Your task to perform on an android device: search for starred emails in the gmail app Image 0: 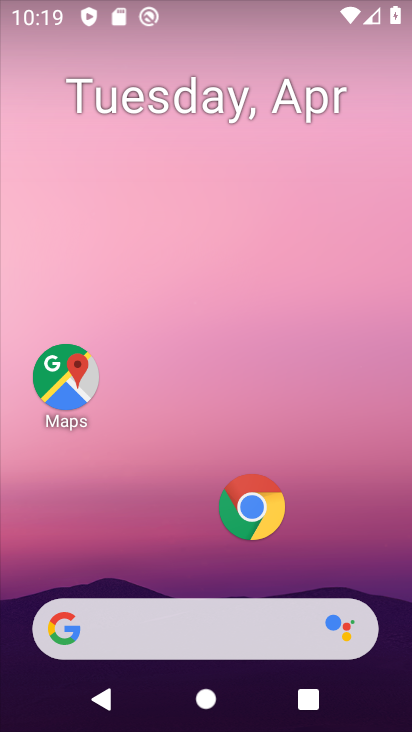
Step 0: drag from (8, 632) to (178, 243)
Your task to perform on an android device: search for starred emails in the gmail app Image 1: 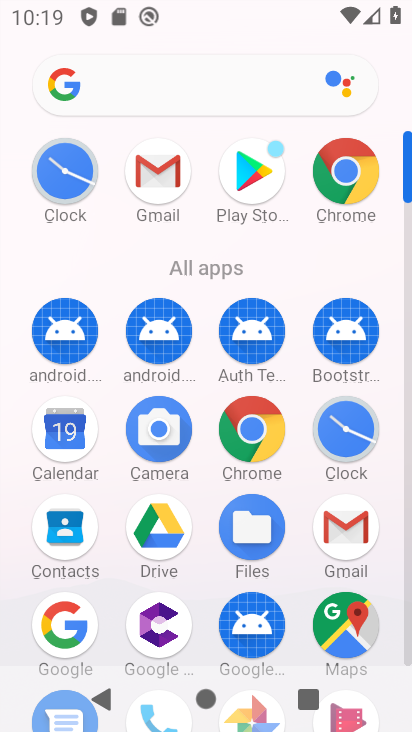
Step 1: click (370, 517)
Your task to perform on an android device: search for starred emails in the gmail app Image 2: 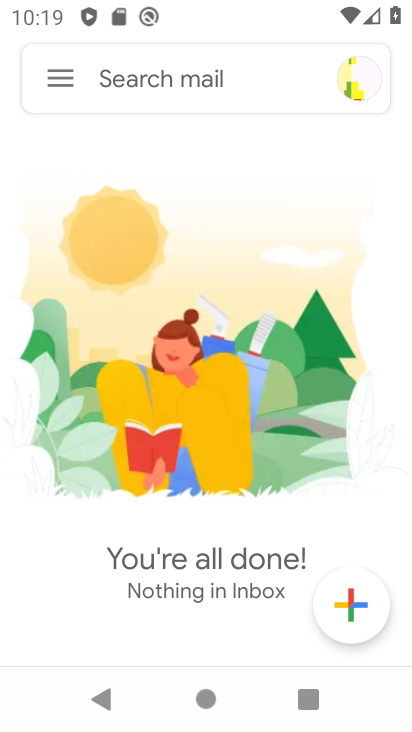
Step 2: click (47, 74)
Your task to perform on an android device: search for starred emails in the gmail app Image 3: 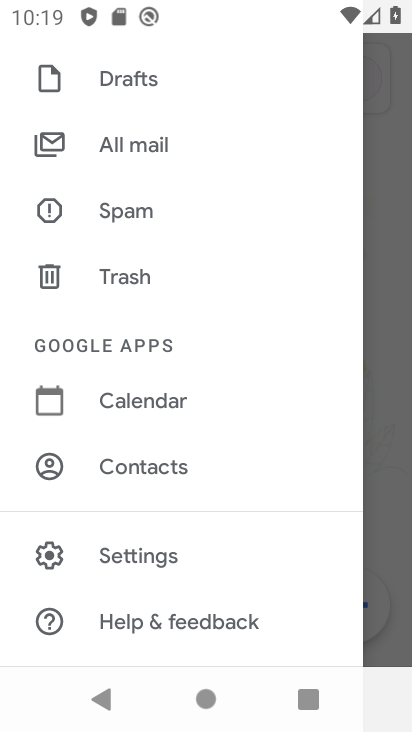
Step 3: drag from (98, 522) to (162, 145)
Your task to perform on an android device: search for starred emails in the gmail app Image 4: 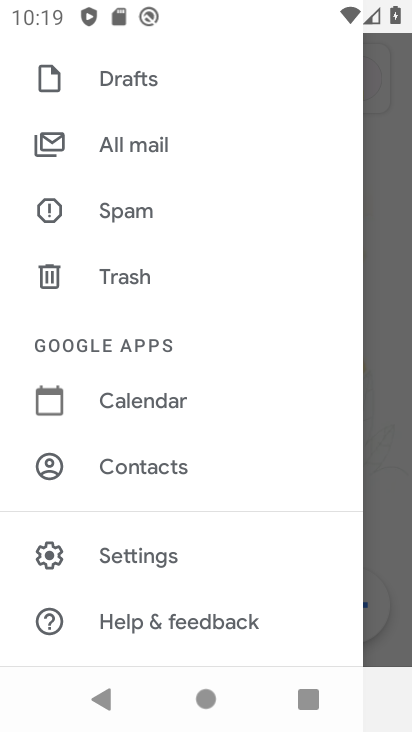
Step 4: drag from (163, 118) to (171, 425)
Your task to perform on an android device: search for starred emails in the gmail app Image 5: 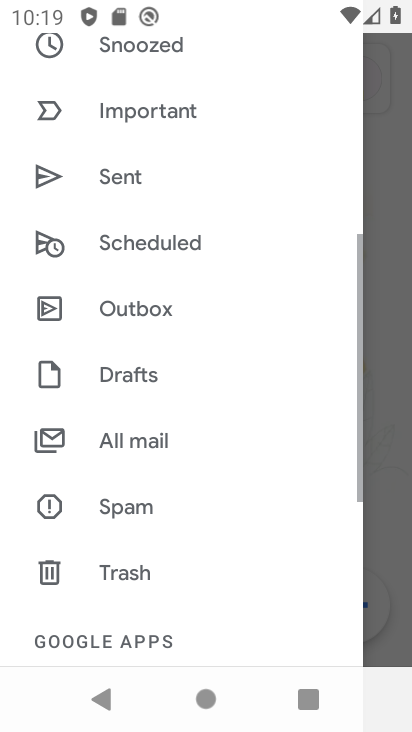
Step 5: drag from (185, 117) to (182, 527)
Your task to perform on an android device: search for starred emails in the gmail app Image 6: 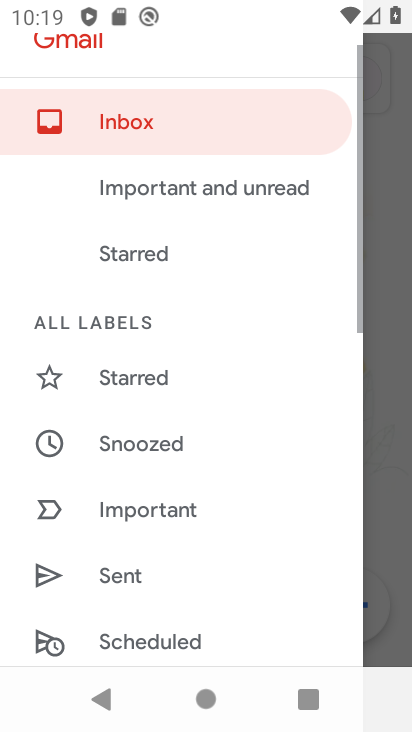
Step 6: drag from (196, 82) to (198, 454)
Your task to perform on an android device: search for starred emails in the gmail app Image 7: 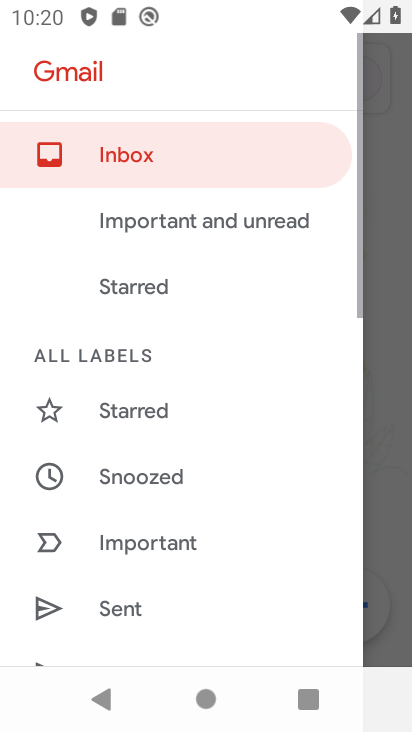
Step 7: click (160, 402)
Your task to perform on an android device: search for starred emails in the gmail app Image 8: 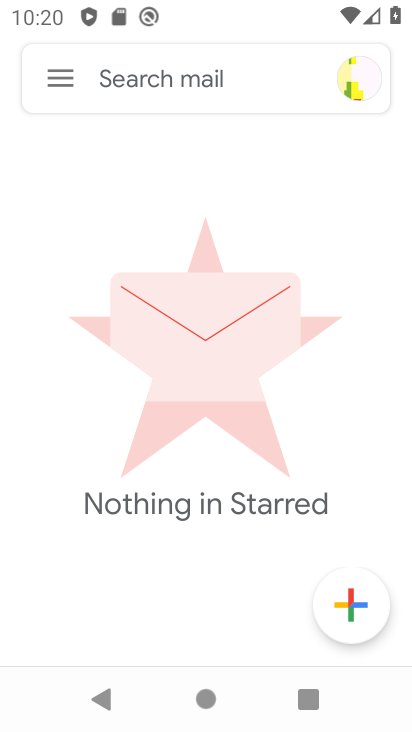
Step 8: task complete